Your task to perform on an android device: Open ESPN.com Image 0: 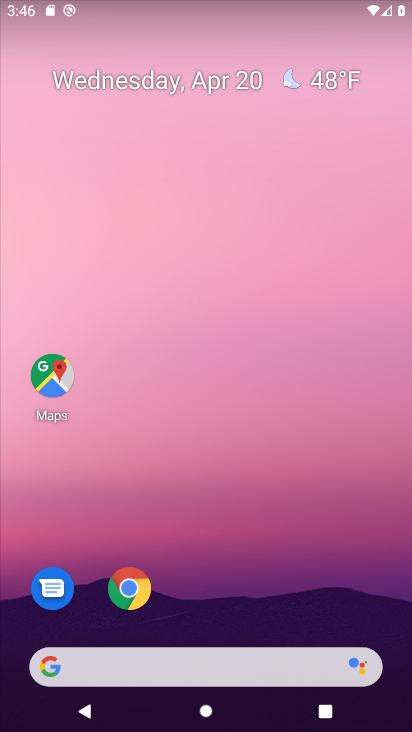
Step 0: drag from (317, 589) to (335, 147)
Your task to perform on an android device: Open ESPN.com Image 1: 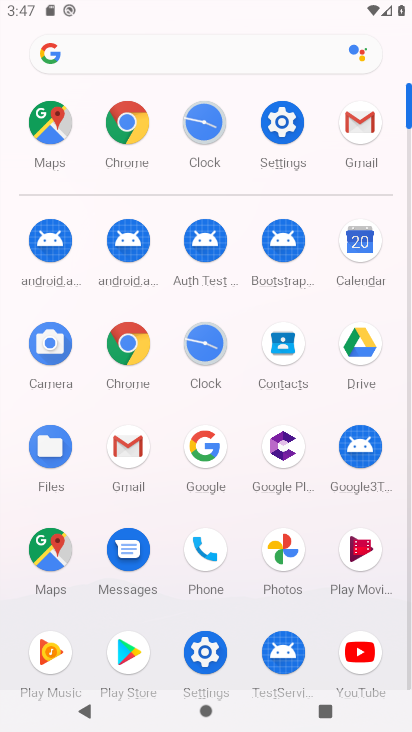
Step 1: click (105, 334)
Your task to perform on an android device: Open ESPN.com Image 2: 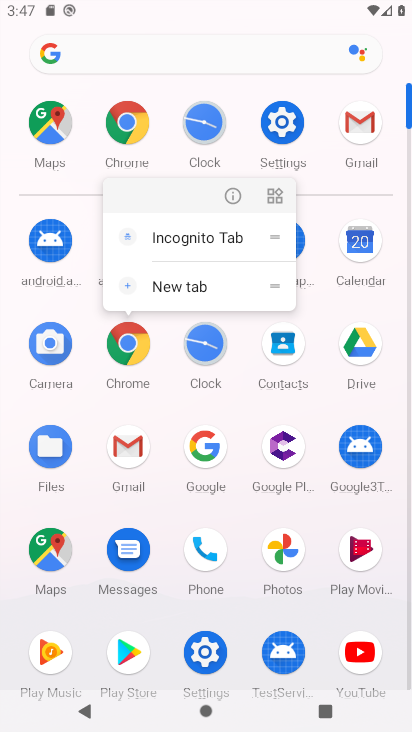
Step 2: click (138, 347)
Your task to perform on an android device: Open ESPN.com Image 3: 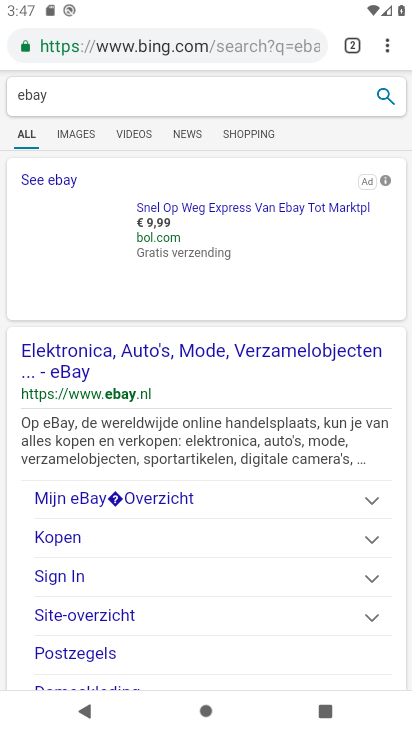
Step 3: click (231, 47)
Your task to perform on an android device: Open ESPN.com Image 4: 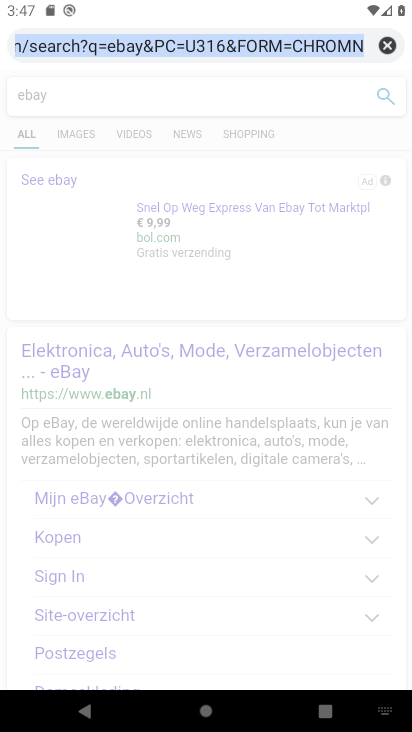
Step 4: click (384, 40)
Your task to perform on an android device: Open ESPN.com Image 5: 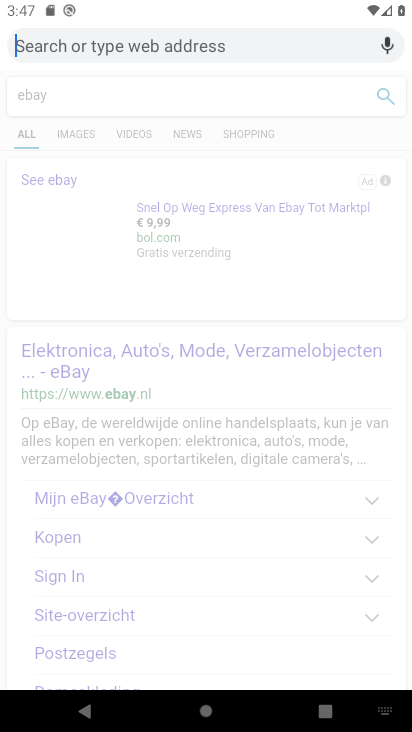
Step 5: type "espn.com"
Your task to perform on an android device: Open ESPN.com Image 6: 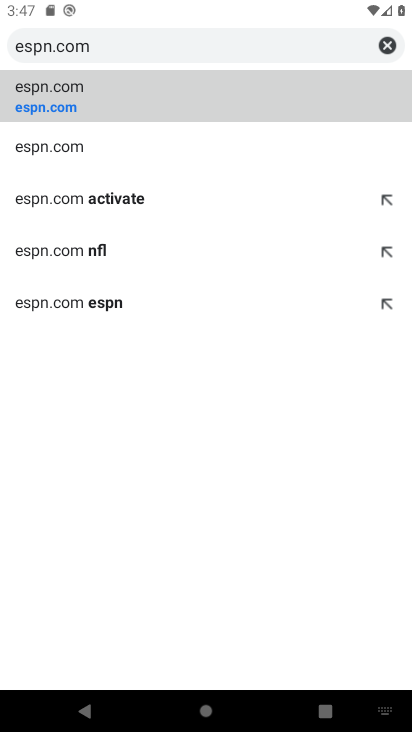
Step 6: click (41, 150)
Your task to perform on an android device: Open ESPN.com Image 7: 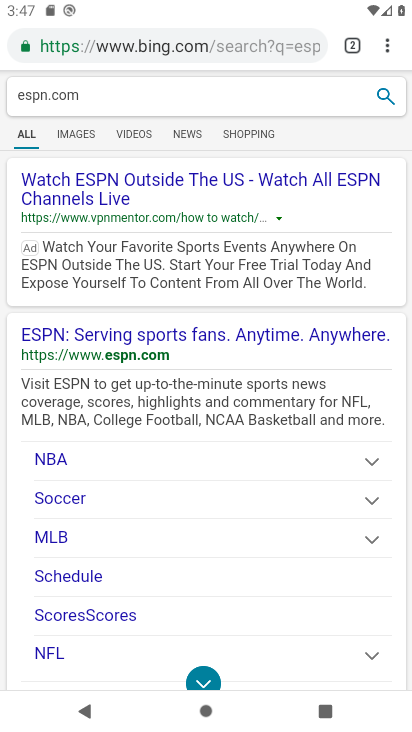
Step 7: task complete